Your task to perform on an android device: turn on javascript in the chrome app Image 0: 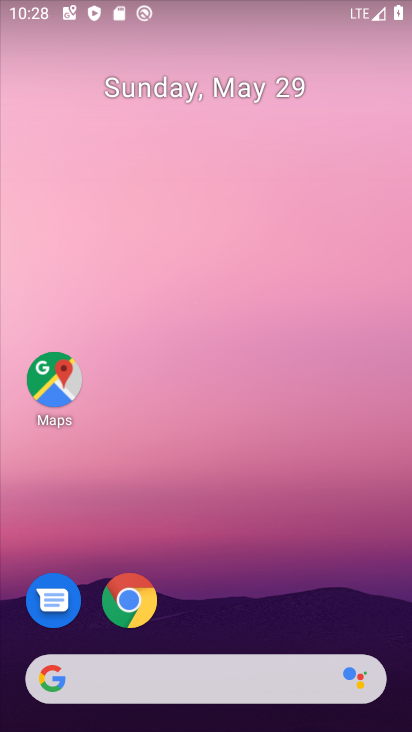
Step 0: click (125, 620)
Your task to perform on an android device: turn on javascript in the chrome app Image 1: 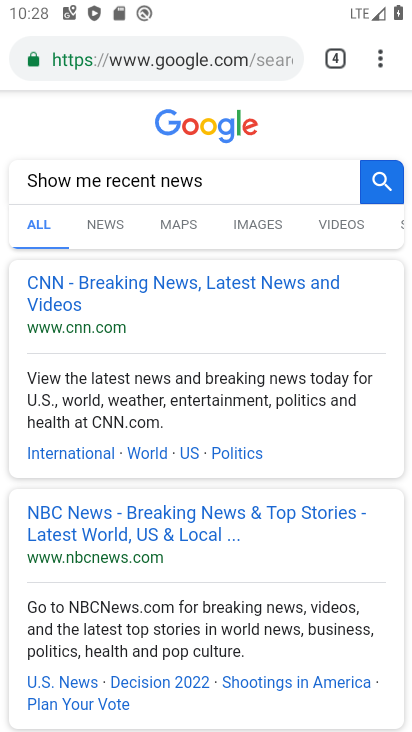
Step 1: drag from (380, 53) to (135, 642)
Your task to perform on an android device: turn on javascript in the chrome app Image 2: 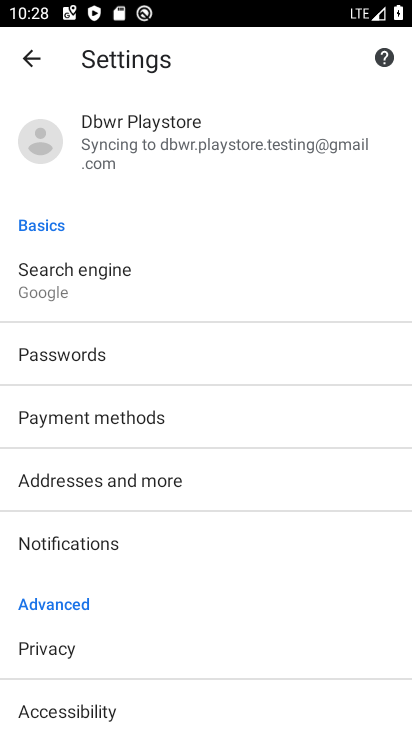
Step 2: drag from (325, 622) to (268, 223)
Your task to perform on an android device: turn on javascript in the chrome app Image 3: 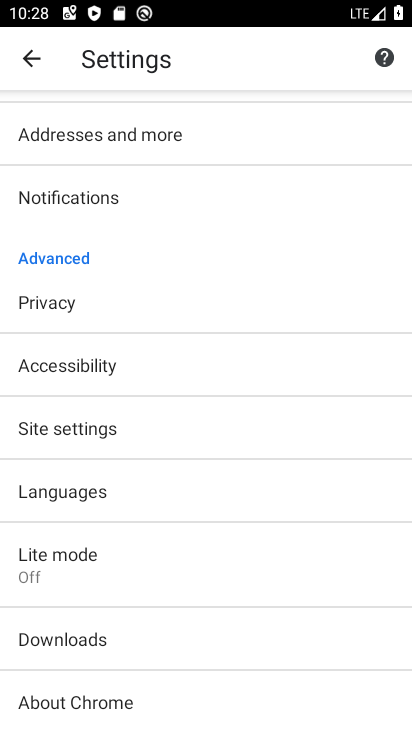
Step 3: drag from (259, 662) to (263, 486)
Your task to perform on an android device: turn on javascript in the chrome app Image 4: 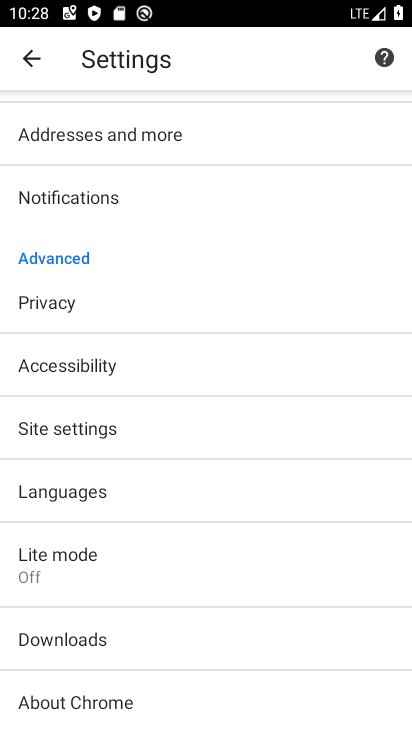
Step 4: click (124, 405)
Your task to perform on an android device: turn on javascript in the chrome app Image 5: 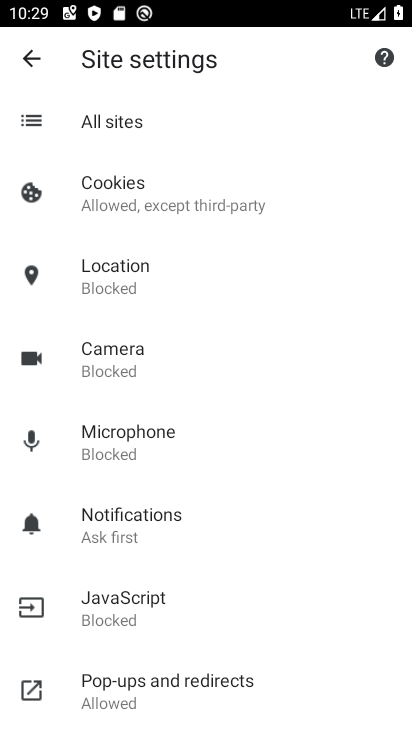
Step 5: click (114, 600)
Your task to perform on an android device: turn on javascript in the chrome app Image 6: 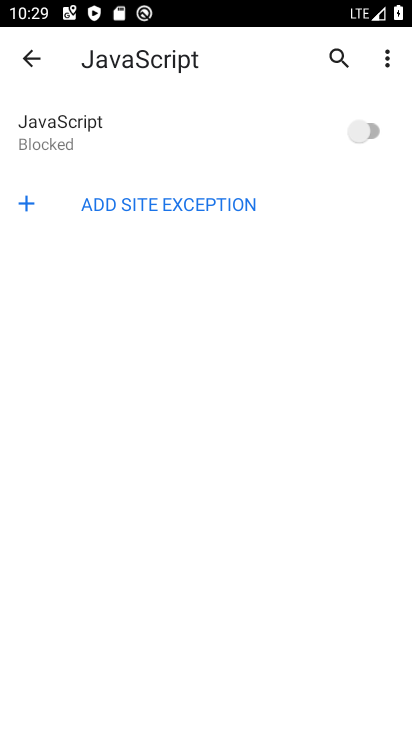
Step 6: click (177, 137)
Your task to perform on an android device: turn on javascript in the chrome app Image 7: 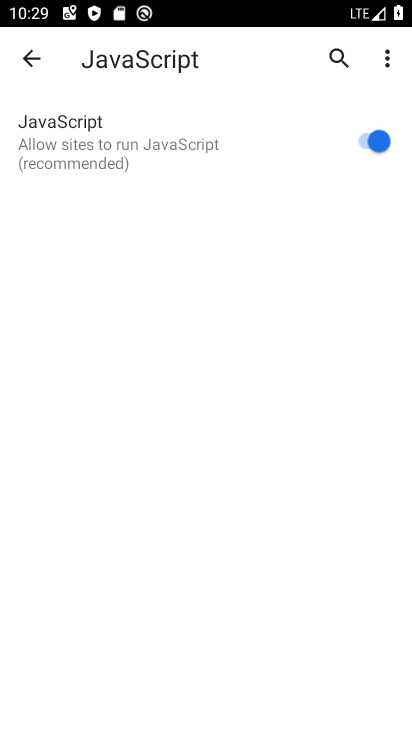
Step 7: task complete